Your task to perform on an android device: Search for amazon basics triple a on target.com, select the first entry, add it to the cart, then select checkout. Image 0: 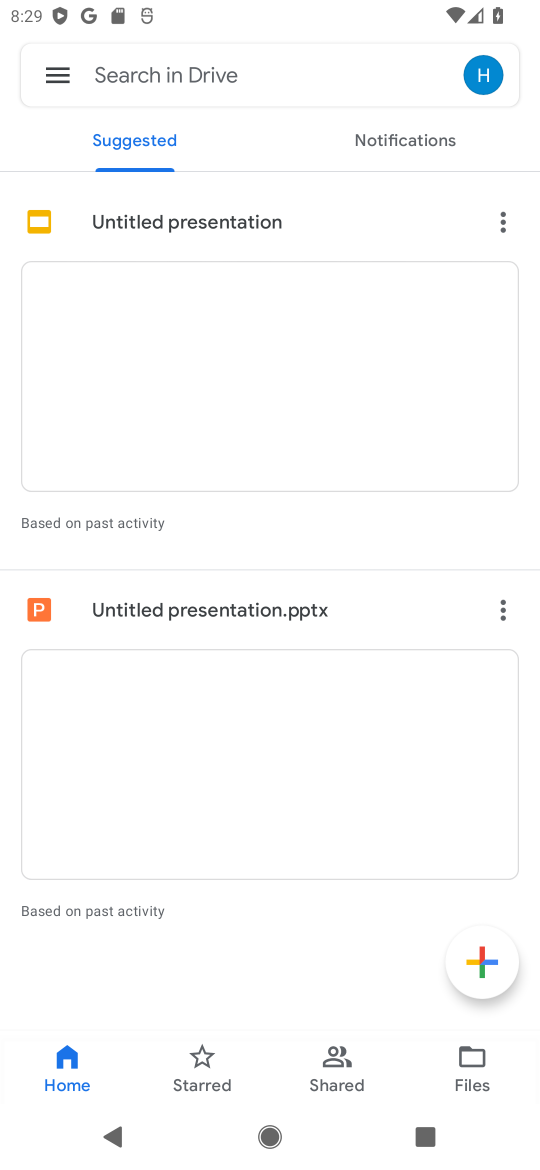
Step 0: press home button
Your task to perform on an android device: Search for amazon basics triple a on target.com, select the first entry, add it to the cart, then select checkout. Image 1: 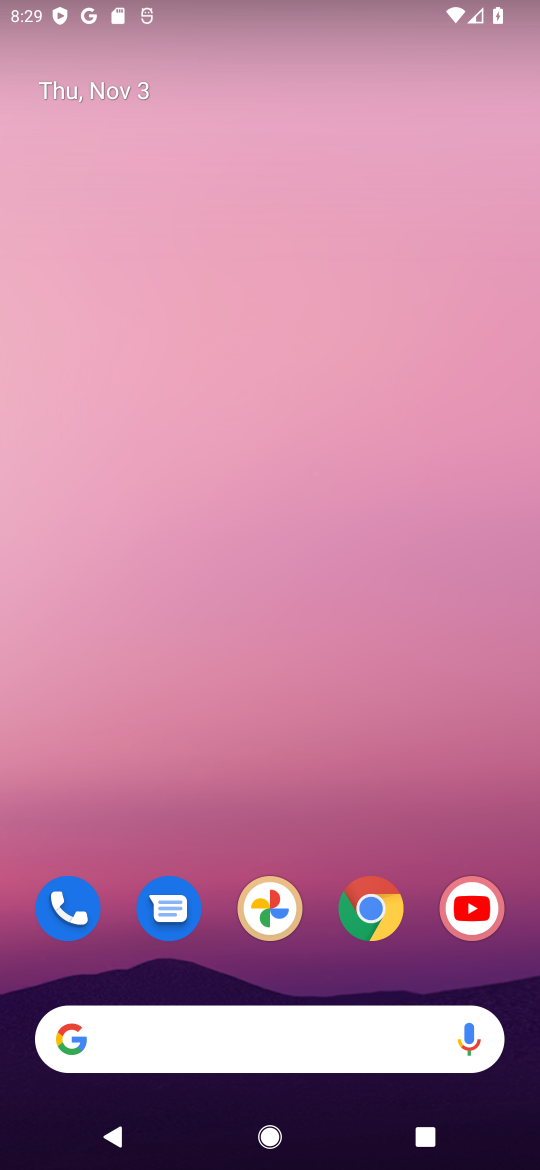
Step 1: click (365, 902)
Your task to perform on an android device: Search for amazon basics triple a on target.com, select the first entry, add it to the cart, then select checkout. Image 2: 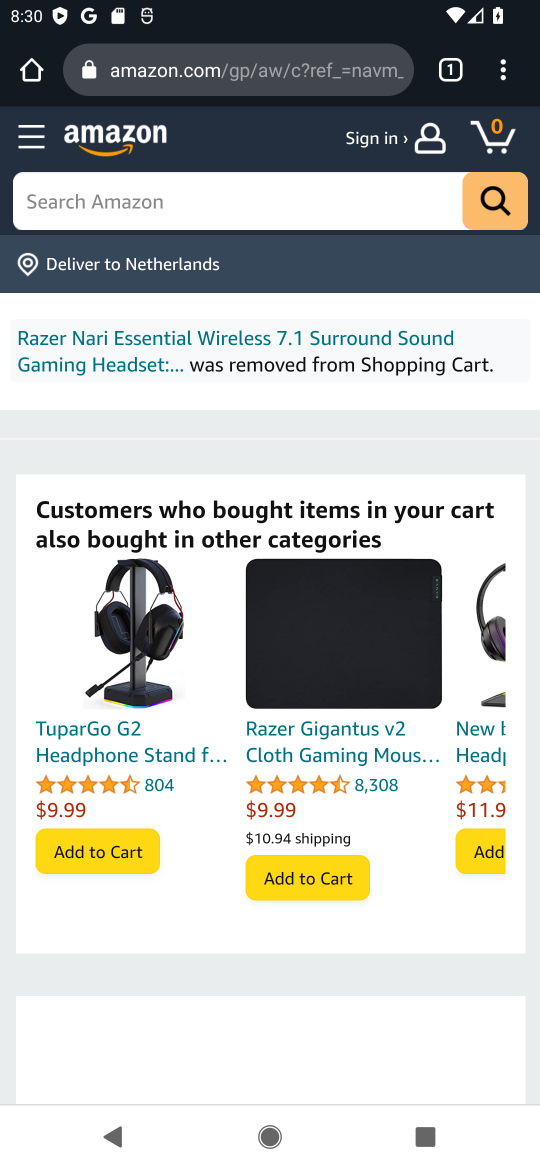
Step 2: click (316, 60)
Your task to perform on an android device: Search for amazon basics triple a on target.com, select the first entry, add it to the cart, then select checkout. Image 3: 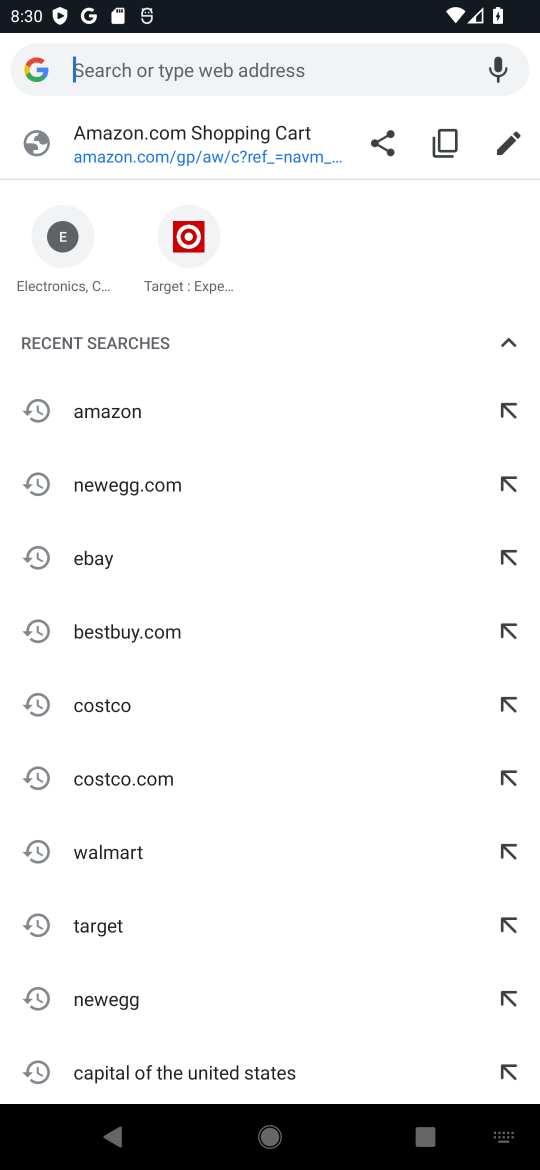
Step 3: click (187, 247)
Your task to perform on an android device: Search for amazon basics triple a on target.com, select the first entry, add it to the cart, then select checkout. Image 4: 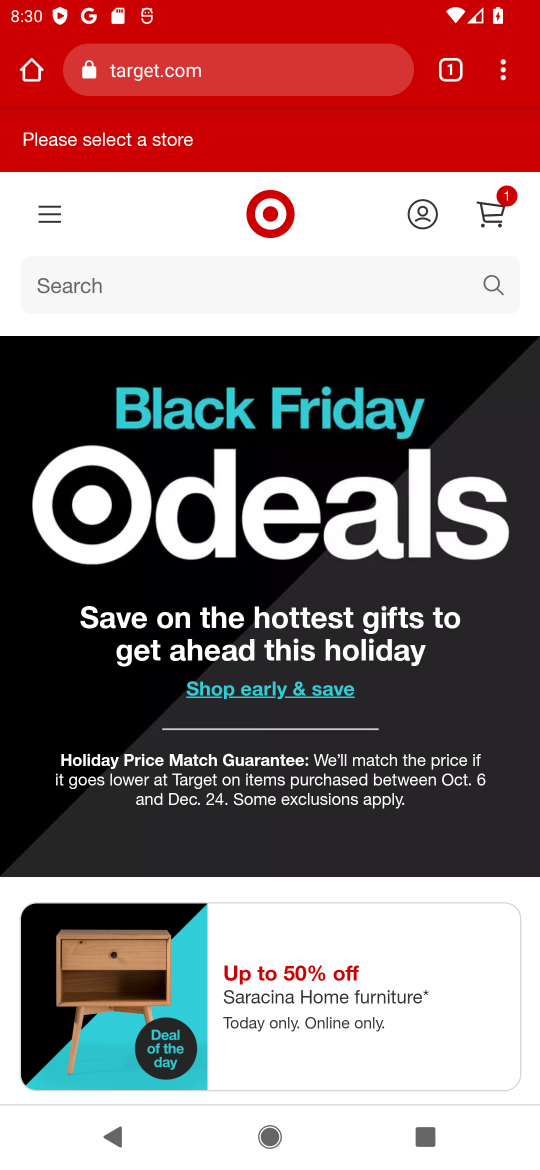
Step 4: click (487, 277)
Your task to perform on an android device: Search for amazon basics triple a on target.com, select the first entry, add it to the cart, then select checkout. Image 5: 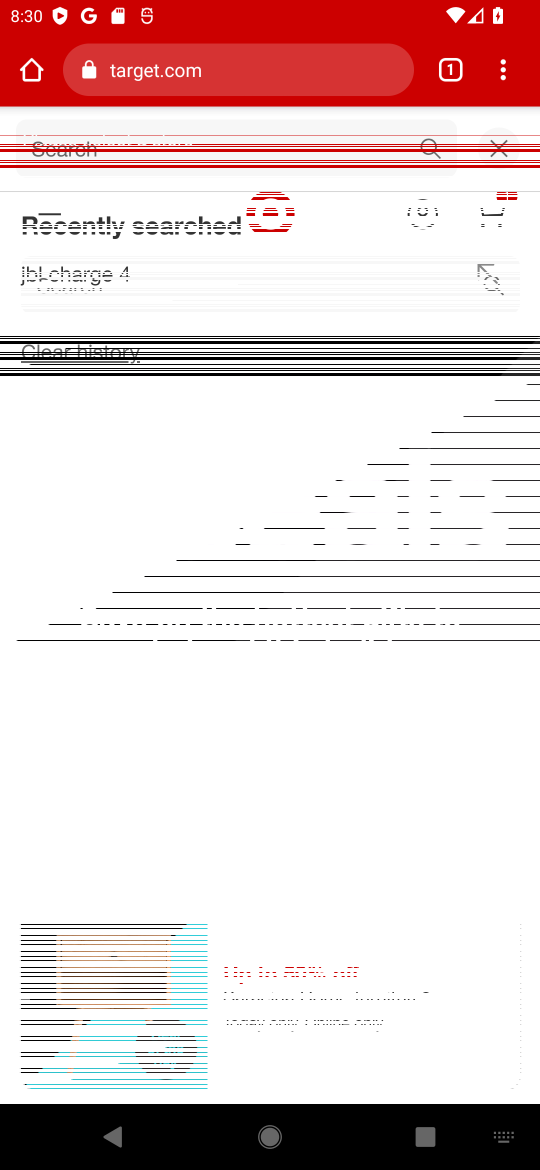
Step 5: type "amazon basics triple a "
Your task to perform on an android device: Search for amazon basics triple a on target.com, select the first entry, add it to the cart, then select checkout. Image 6: 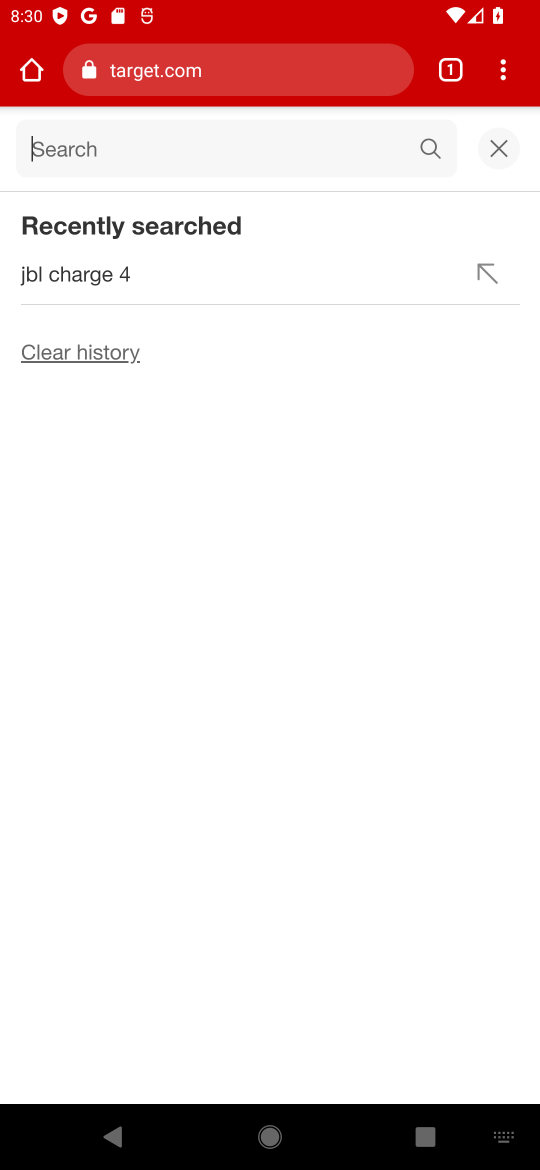
Step 6: press enter
Your task to perform on an android device: Search for amazon basics triple a on target.com, select the first entry, add it to the cart, then select checkout. Image 7: 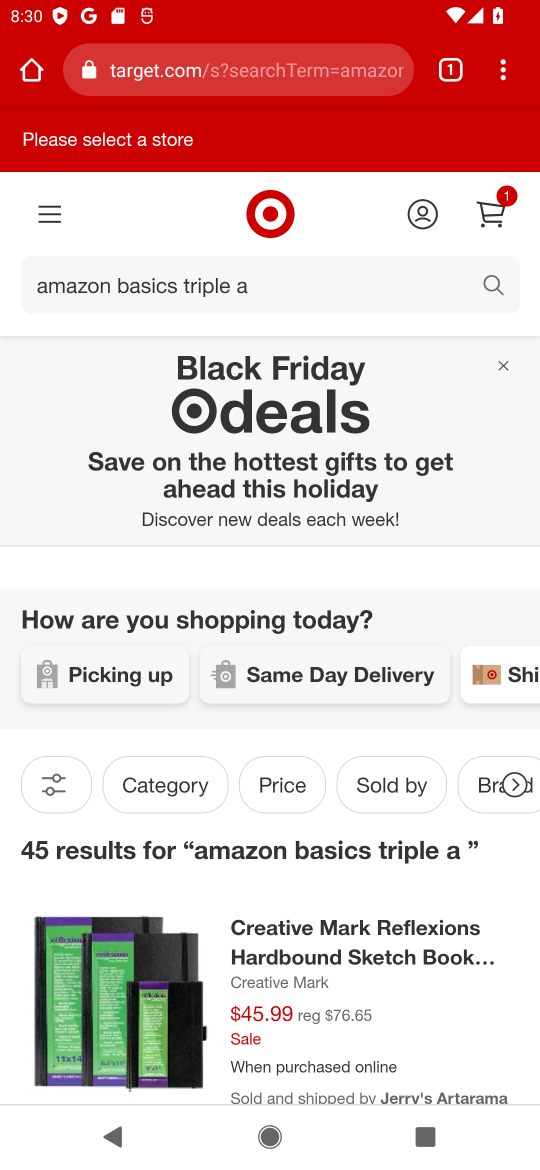
Step 7: task complete